Your task to perform on an android device: Open the map Image 0: 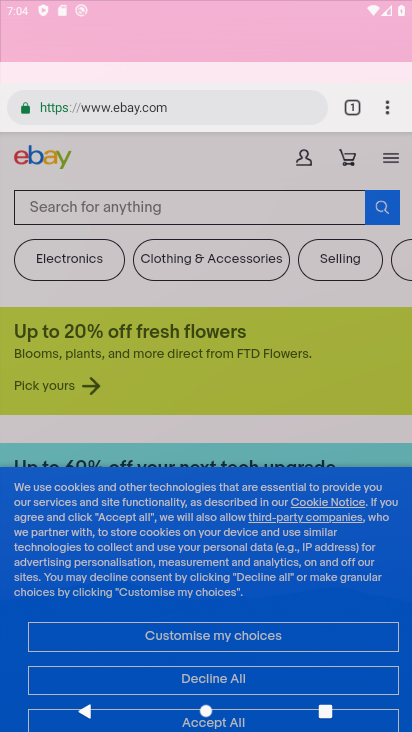
Step 0: click (125, 578)
Your task to perform on an android device: Open the map Image 1: 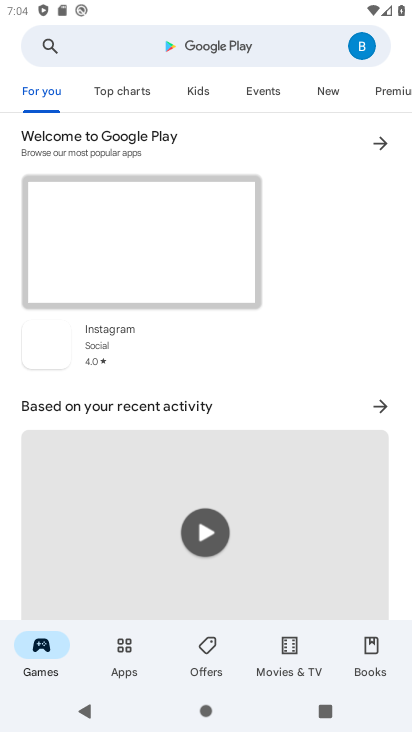
Step 1: press home button
Your task to perform on an android device: Open the map Image 2: 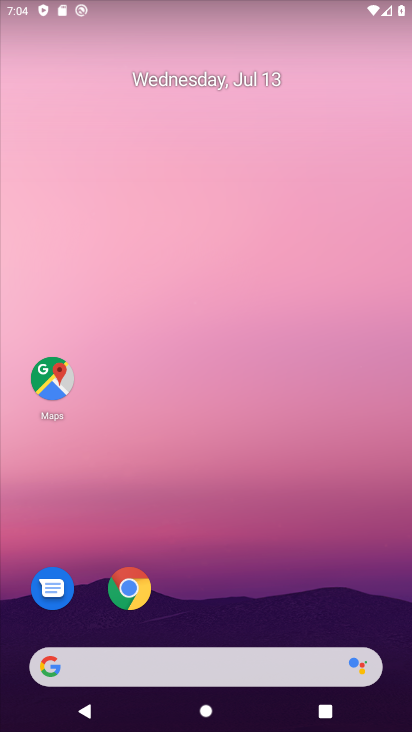
Step 2: click (47, 379)
Your task to perform on an android device: Open the map Image 3: 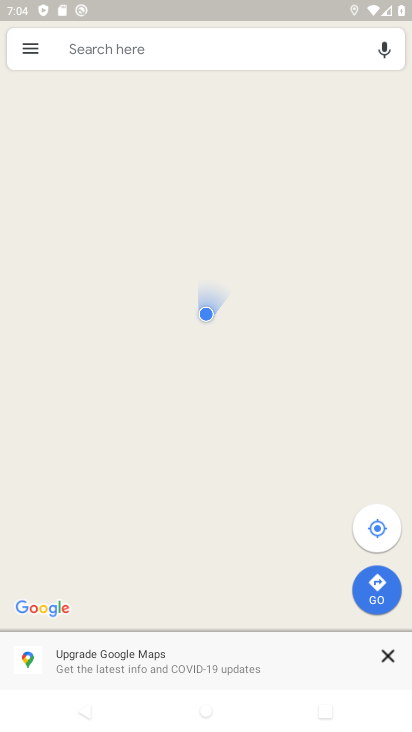
Step 3: task complete